Your task to perform on an android device: Set the phone to "Do not disturb". Image 0: 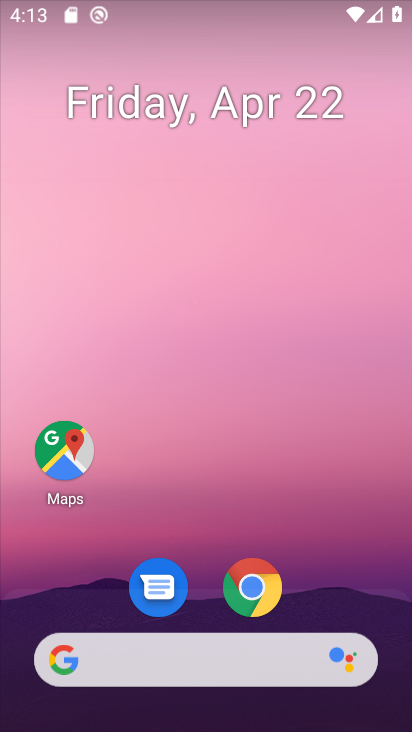
Step 0: drag from (344, 568) to (302, 81)
Your task to perform on an android device: Set the phone to "Do not disturb". Image 1: 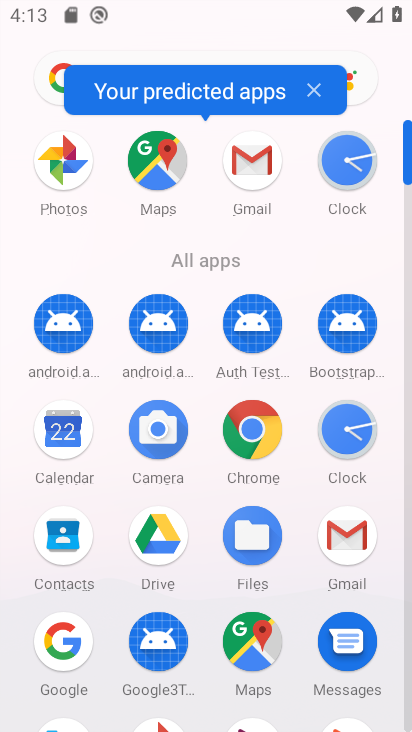
Step 1: drag from (208, 568) to (203, 128)
Your task to perform on an android device: Set the phone to "Do not disturb". Image 2: 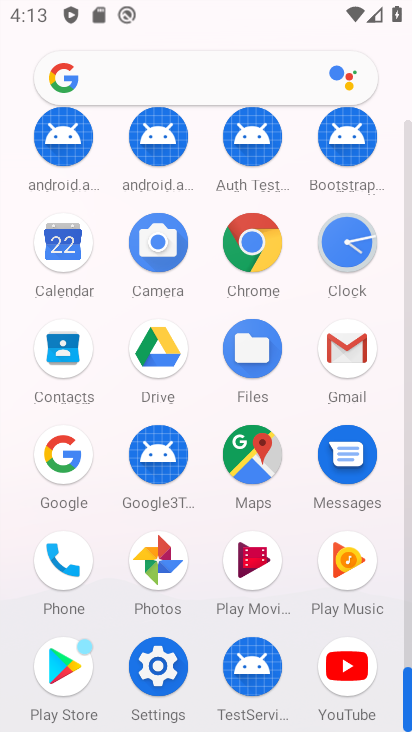
Step 2: click (162, 655)
Your task to perform on an android device: Set the phone to "Do not disturb". Image 3: 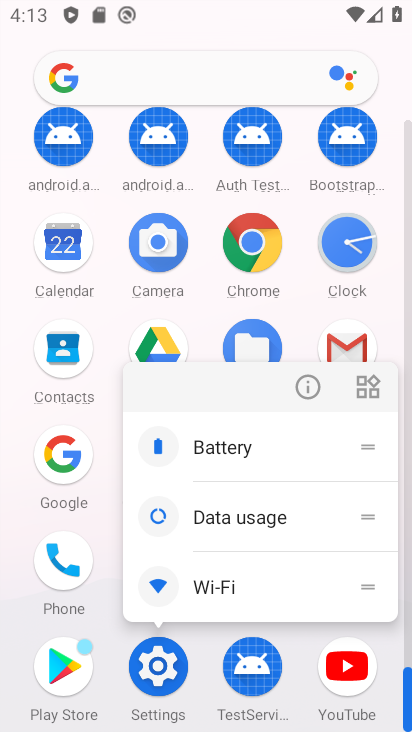
Step 3: click (162, 656)
Your task to perform on an android device: Set the phone to "Do not disturb". Image 4: 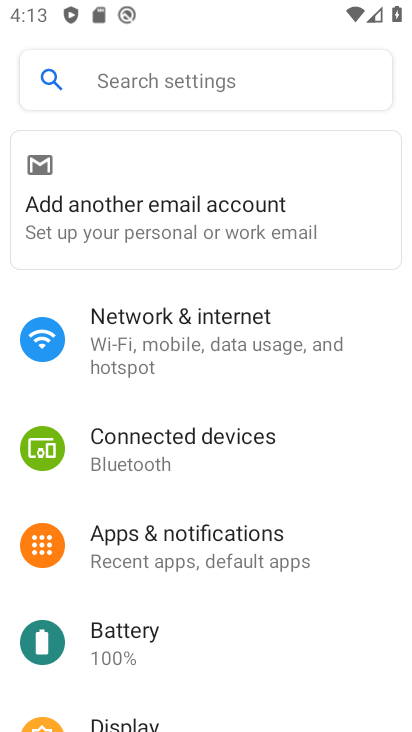
Step 4: drag from (163, 625) to (212, 295)
Your task to perform on an android device: Set the phone to "Do not disturb". Image 5: 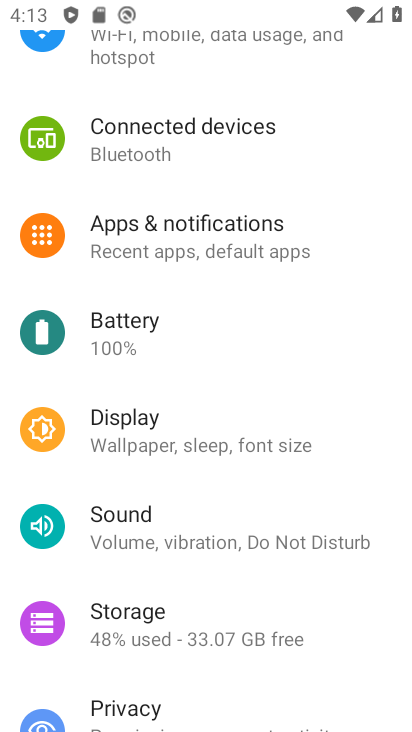
Step 5: click (317, 535)
Your task to perform on an android device: Set the phone to "Do not disturb". Image 6: 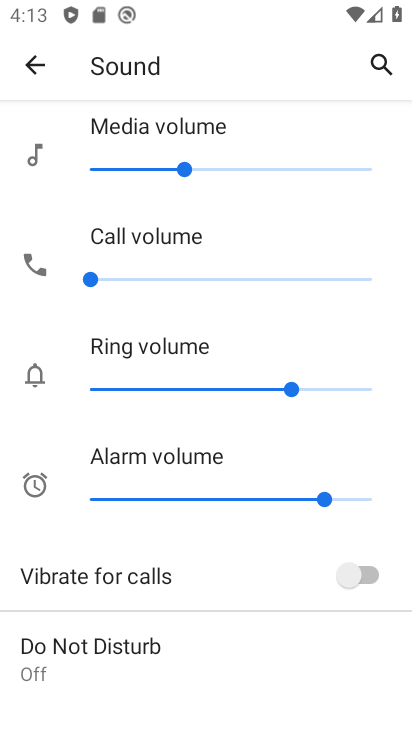
Step 6: click (203, 653)
Your task to perform on an android device: Set the phone to "Do not disturb". Image 7: 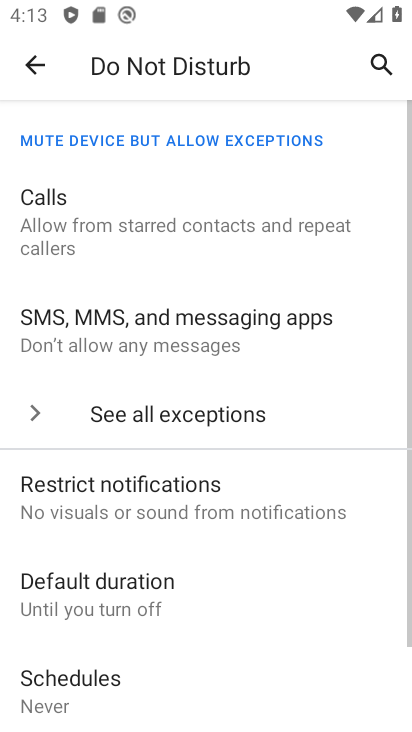
Step 7: drag from (205, 648) to (244, 237)
Your task to perform on an android device: Set the phone to "Do not disturb". Image 8: 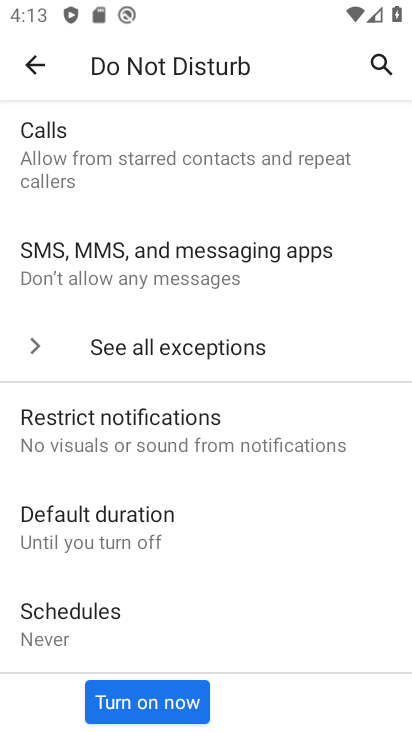
Step 8: click (189, 702)
Your task to perform on an android device: Set the phone to "Do not disturb". Image 9: 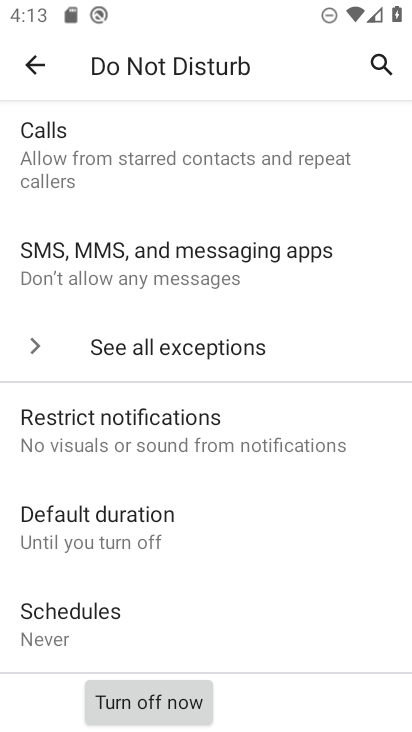
Step 9: task complete